Your task to perform on an android device: Open Youtube and go to the subscriptions tab Image 0: 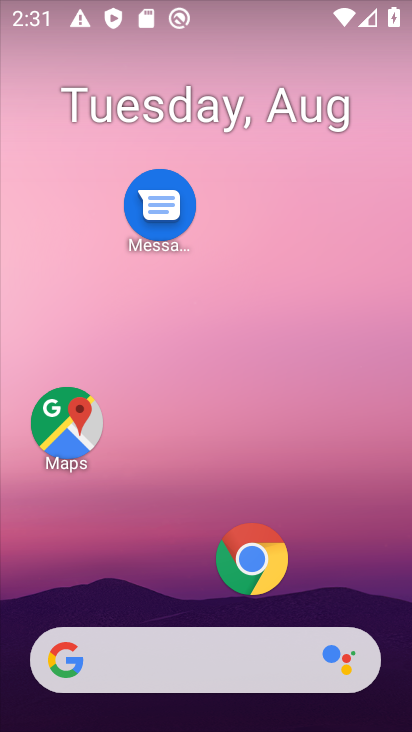
Step 0: drag from (178, 588) to (175, 118)
Your task to perform on an android device: Open Youtube and go to the subscriptions tab Image 1: 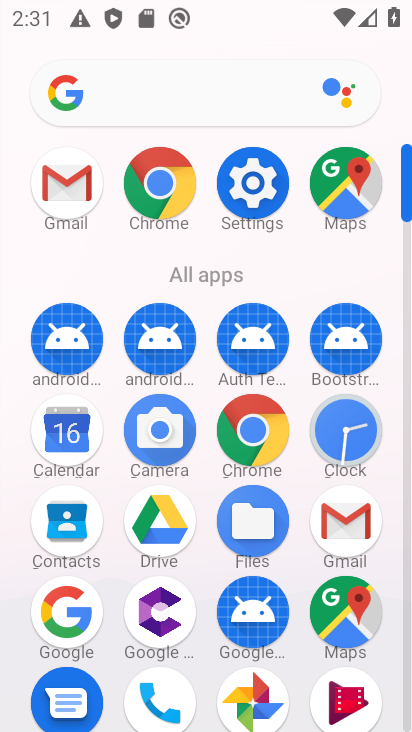
Step 1: drag from (203, 654) to (204, 344)
Your task to perform on an android device: Open Youtube and go to the subscriptions tab Image 2: 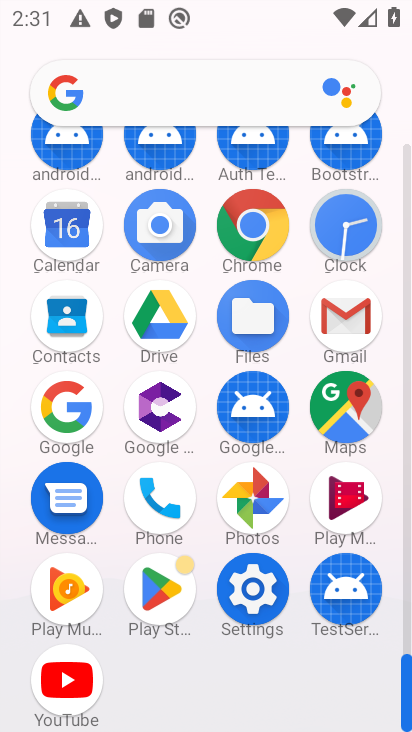
Step 2: click (69, 677)
Your task to perform on an android device: Open Youtube and go to the subscriptions tab Image 3: 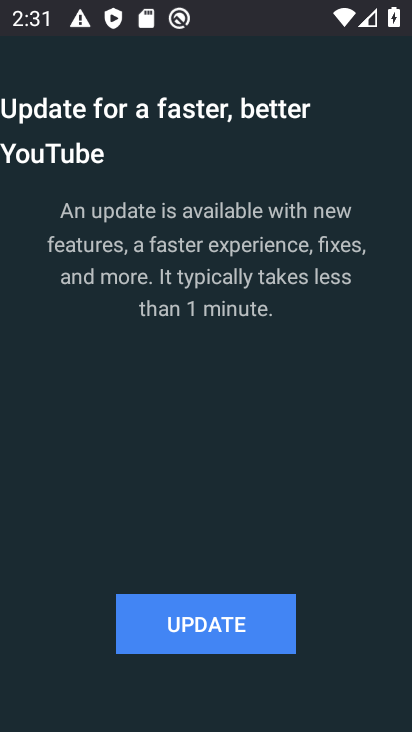
Step 3: click (212, 618)
Your task to perform on an android device: Open Youtube and go to the subscriptions tab Image 4: 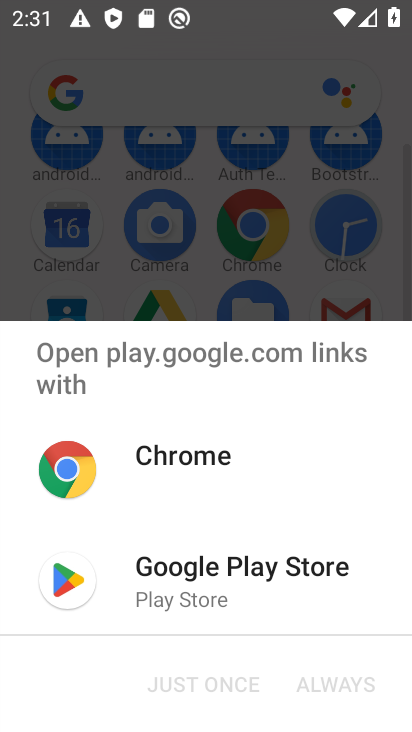
Step 4: click (201, 566)
Your task to perform on an android device: Open Youtube and go to the subscriptions tab Image 5: 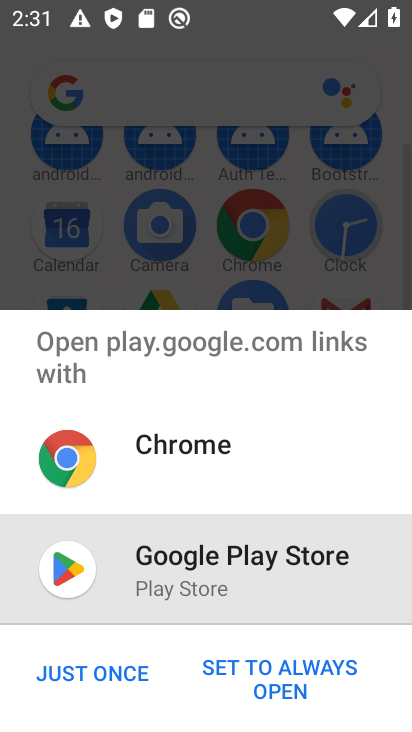
Step 5: click (104, 668)
Your task to perform on an android device: Open Youtube and go to the subscriptions tab Image 6: 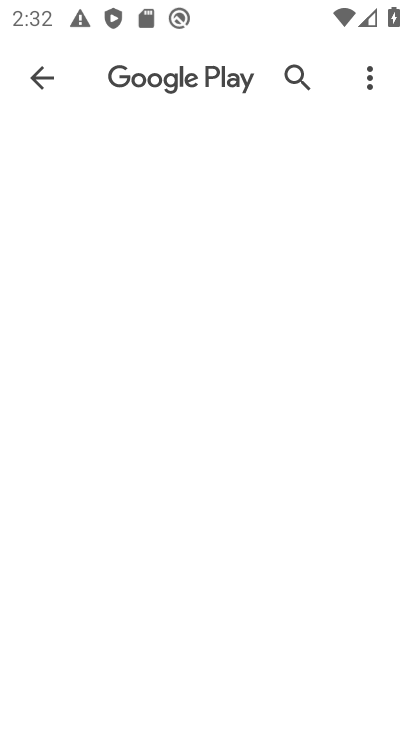
Step 6: click (189, 406)
Your task to perform on an android device: Open Youtube and go to the subscriptions tab Image 7: 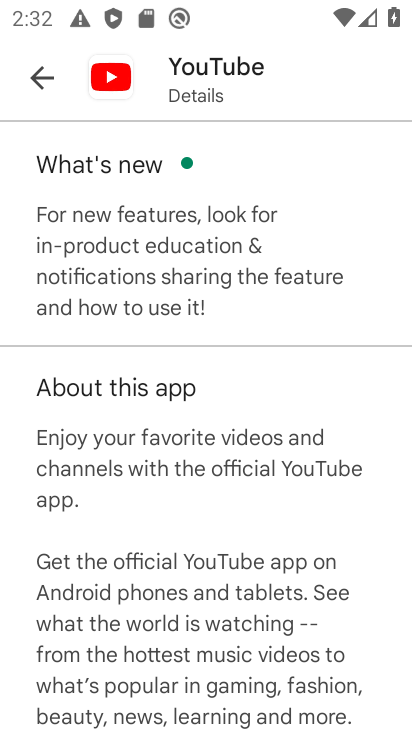
Step 7: click (40, 73)
Your task to perform on an android device: Open Youtube and go to the subscriptions tab Image 8: 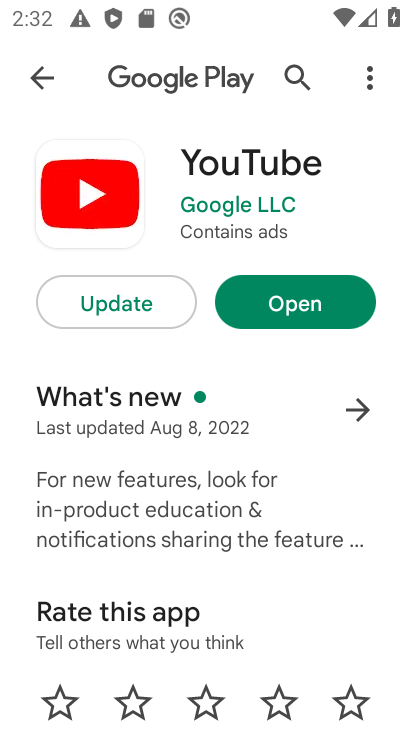
Step 8: click (149, 305)
Your task to perform on an android device: Open Youtube and go to the subscriptions tab Image 9: 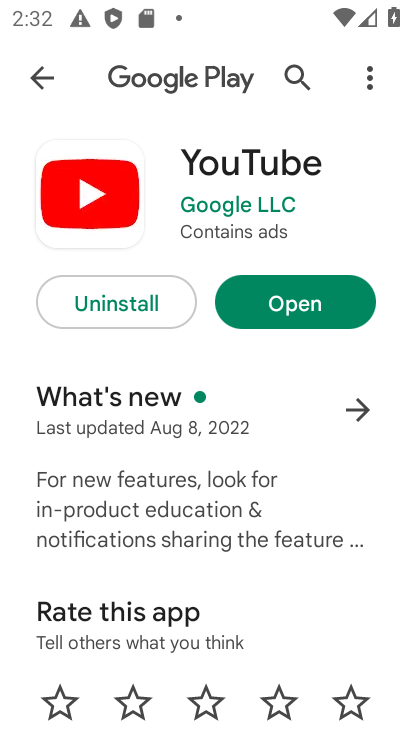
Step 9: click (296, 300)
Your task to perform on an android device: Open Youtube and go to the subscriptions tab Image 10: 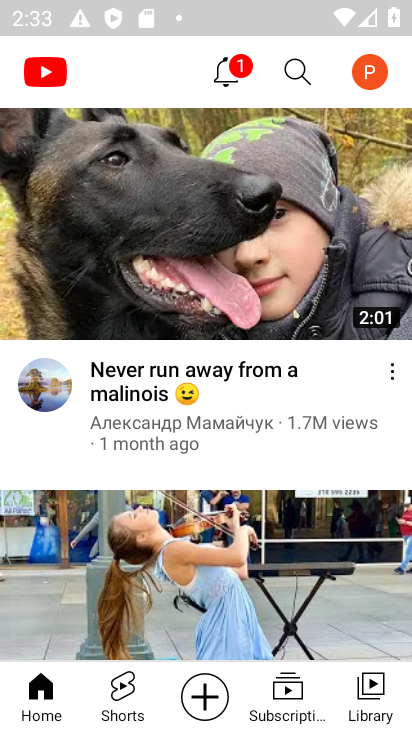
Step 10: click (286, 684)
Your task to perform on an android device: Open Youtube and go to the subscriptions tab Image 11: 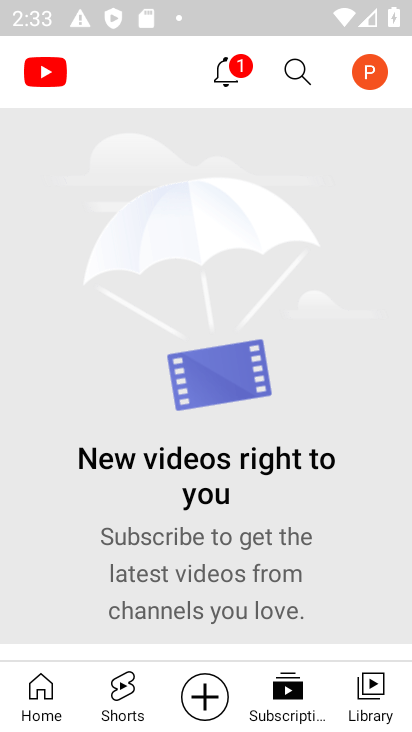
Step 11: task complete